Your task to perform on an android device: refresh tabs in the chrome app Image 0: 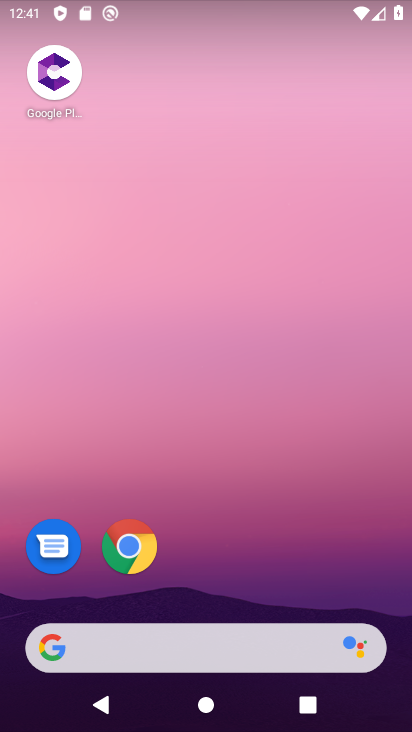
Step 0: click (128, 547)
Your task to perform on an android device: refresh tabs in the chrome app Image 1: 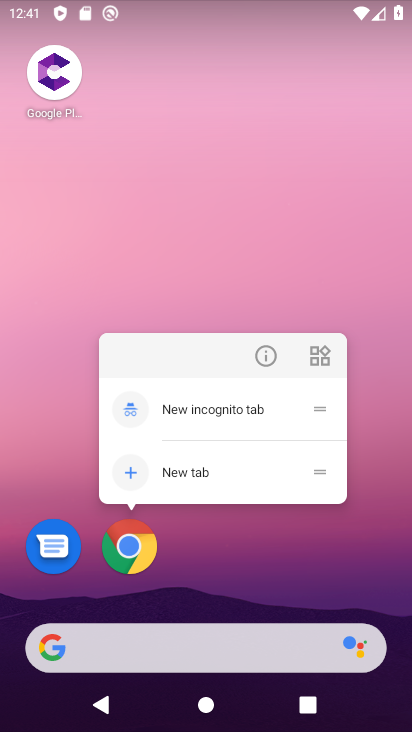
Step 1: click (128, 547)
Your task to perform on an android device: refresh tabs in the chrome app Image 2: 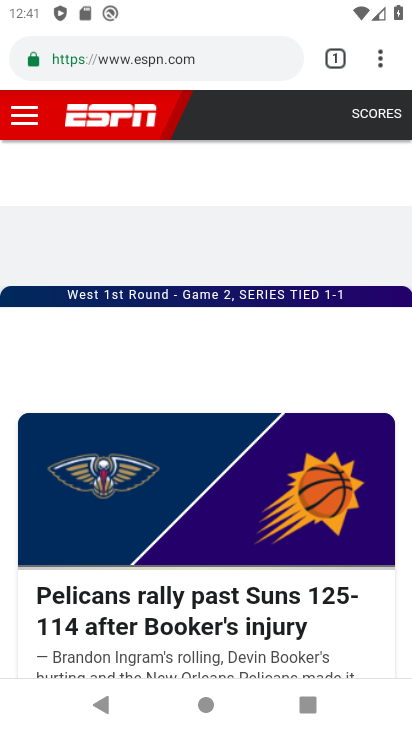
Step 2: click (381, 67)
Your task to perform on an android device: refresh tabs in the chrome app Image 3: 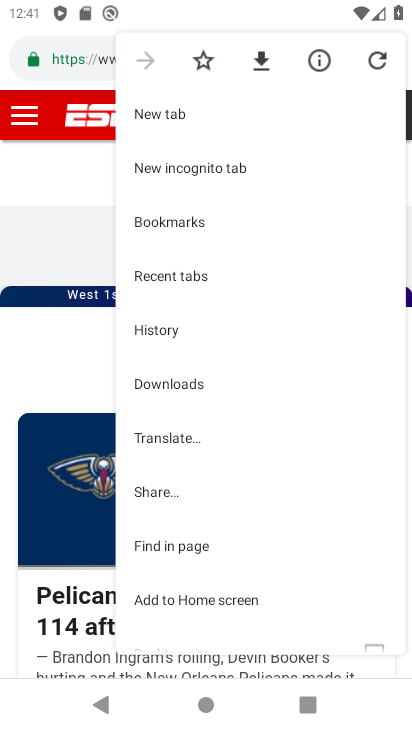
Step 3: click (374, 62)
Your task to perform on an android device: refresh tabs in the chrome app Image 4: 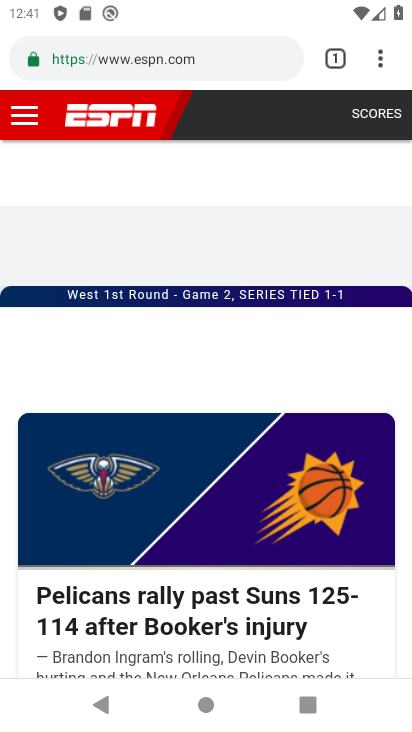
Step 4: task complete